Your task to perform on an android device: Clear the cart on walmart.com. Search for duracell triple a on walmart.com, select the first entry, add it to the cart, then select checkout. Image 0: 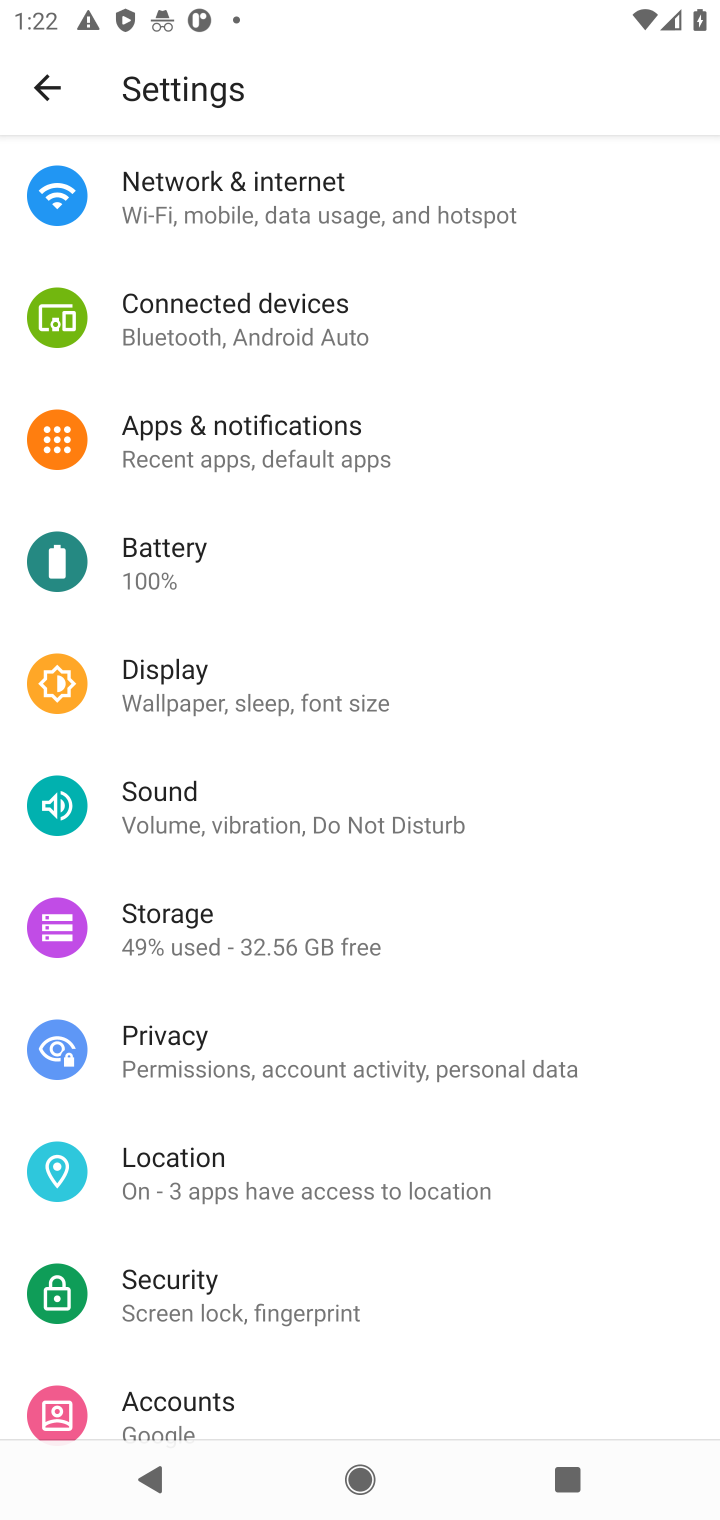
Step 0: press home button
Your task to perform on an android device: Clear the cart on walmart.com. Search for duracell triple a on walmart.com, select the first entry, add it to the cart, then select checkout. Image 1: 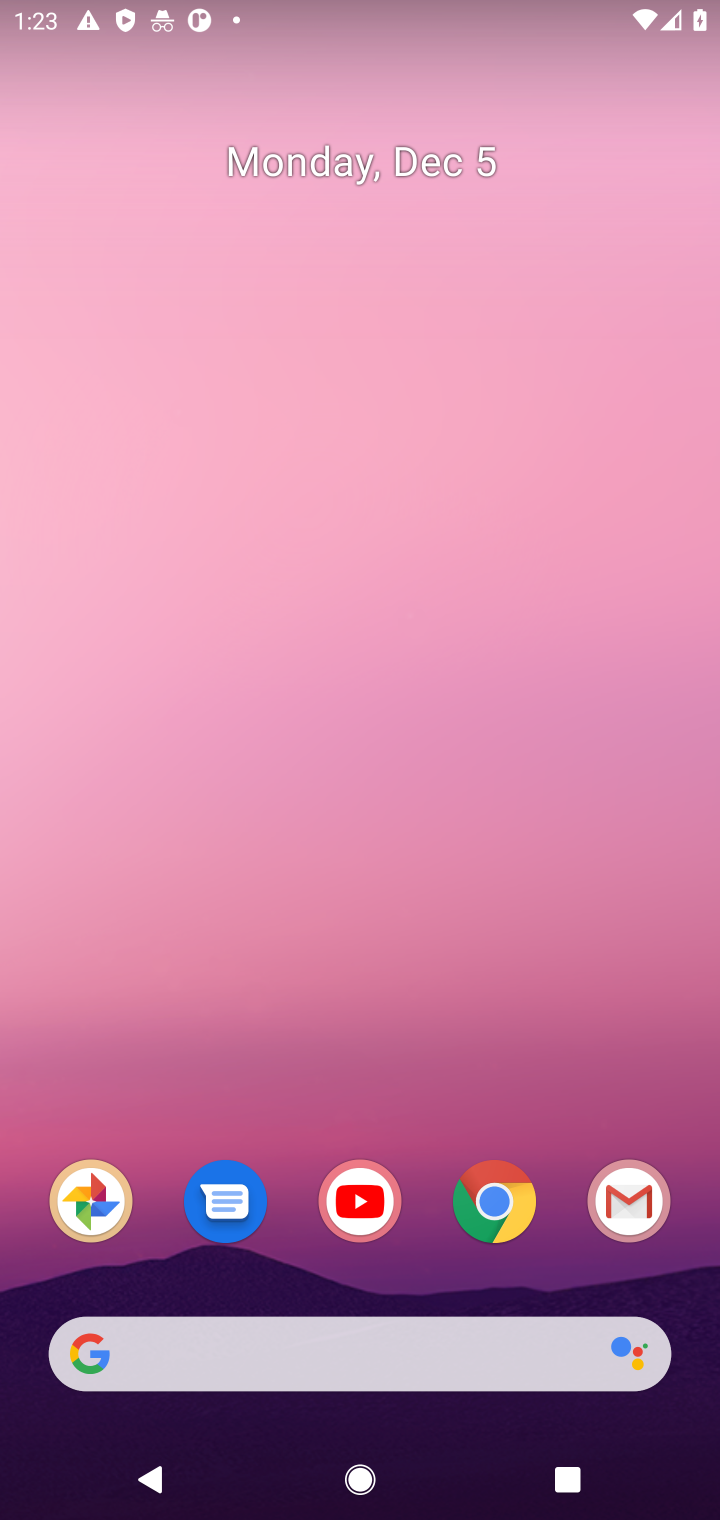
Step 1: click (521, 1220)
Your task to perform on an android device: Clear the cart on walmart.com. Search for duracell triple a on walmart.com, select the first entry, add it to the cart, then select checkout. Image 2: 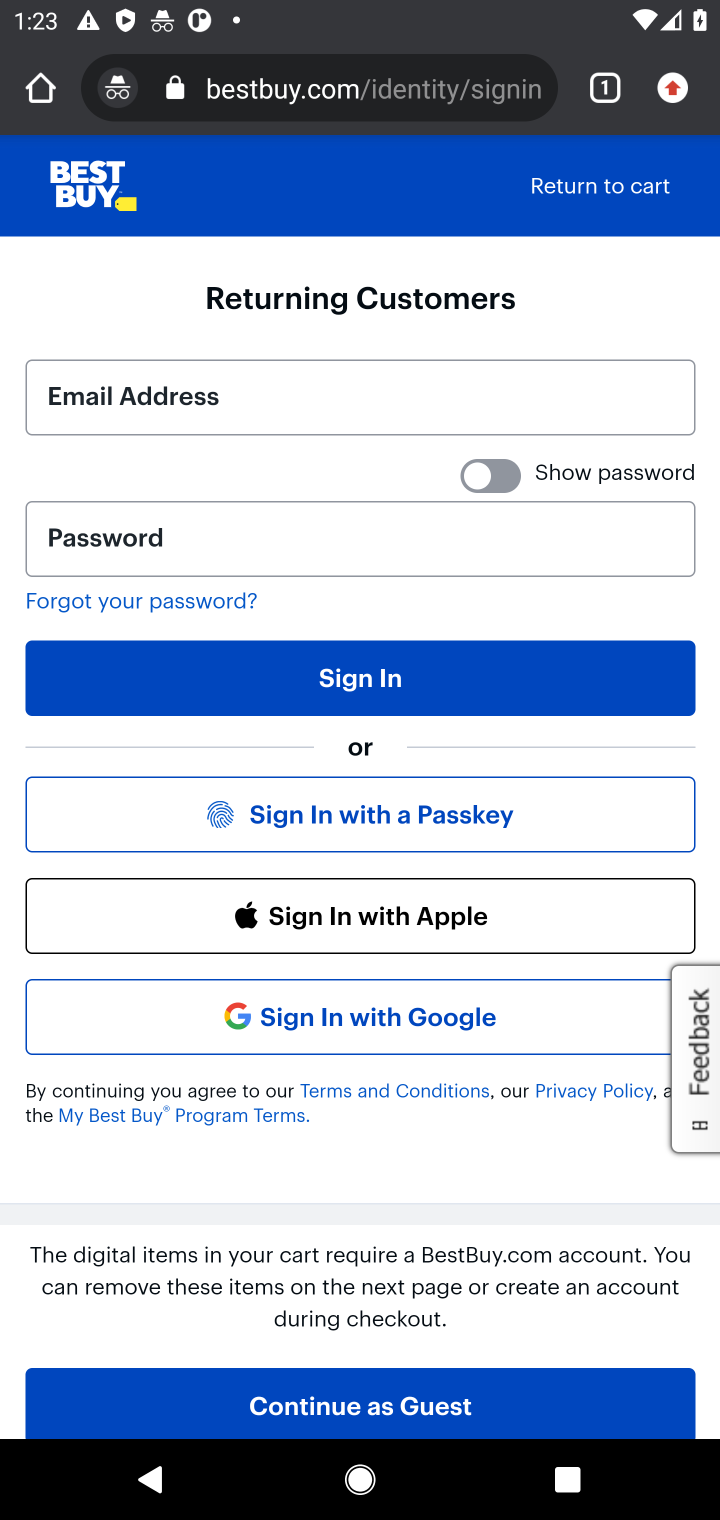
Step 2: click (385, 112)
Your task to perform on an android device: Clear the cart on walmart.com. Search for duracell triple a on walmart.com, select the first entry, add it to the cart, then select checkout. Image 3: 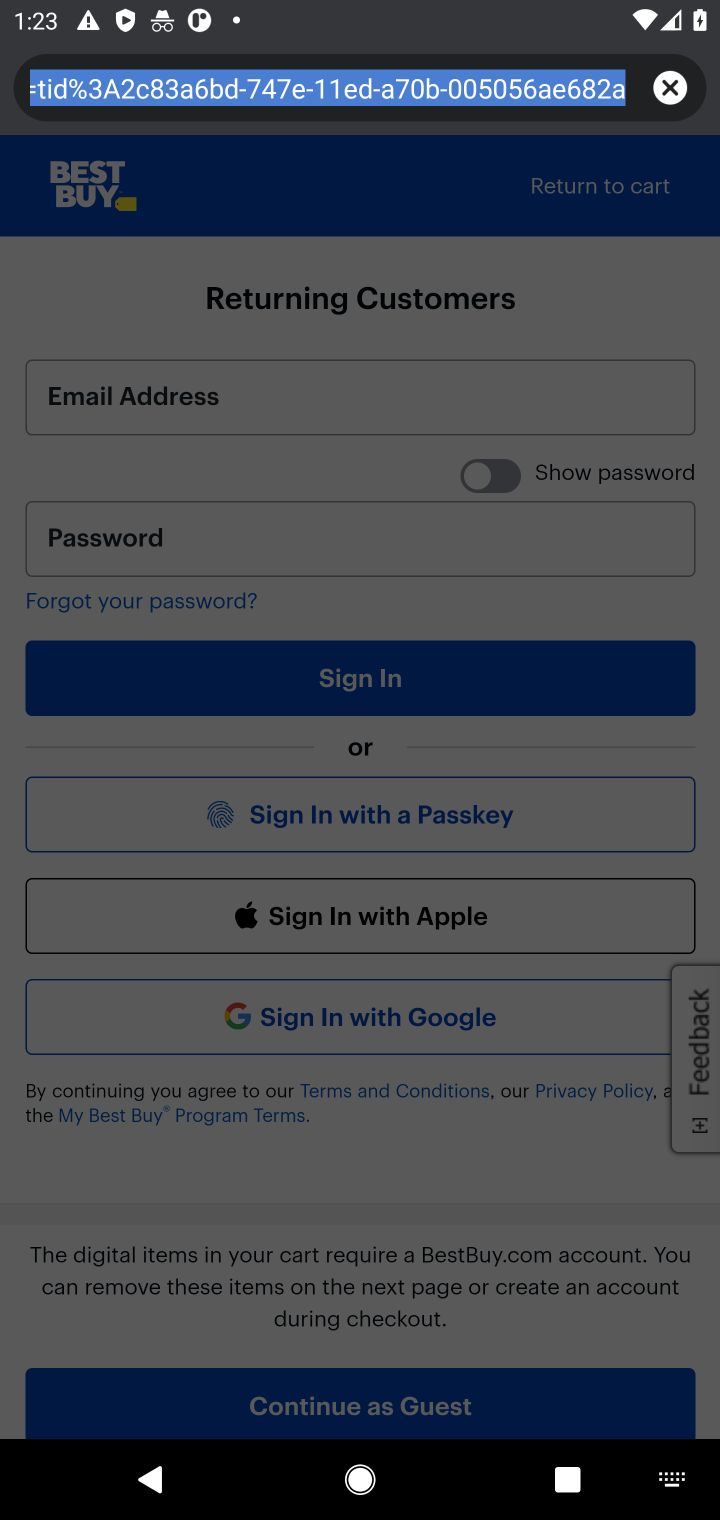
Step 3: click (662, 86)
Your task to perform on an android device: Clear the cart on walmart.com. Search for duracell triple a on walmart.com, select the first entry, add it to the cart, then select checkout. Image 4: 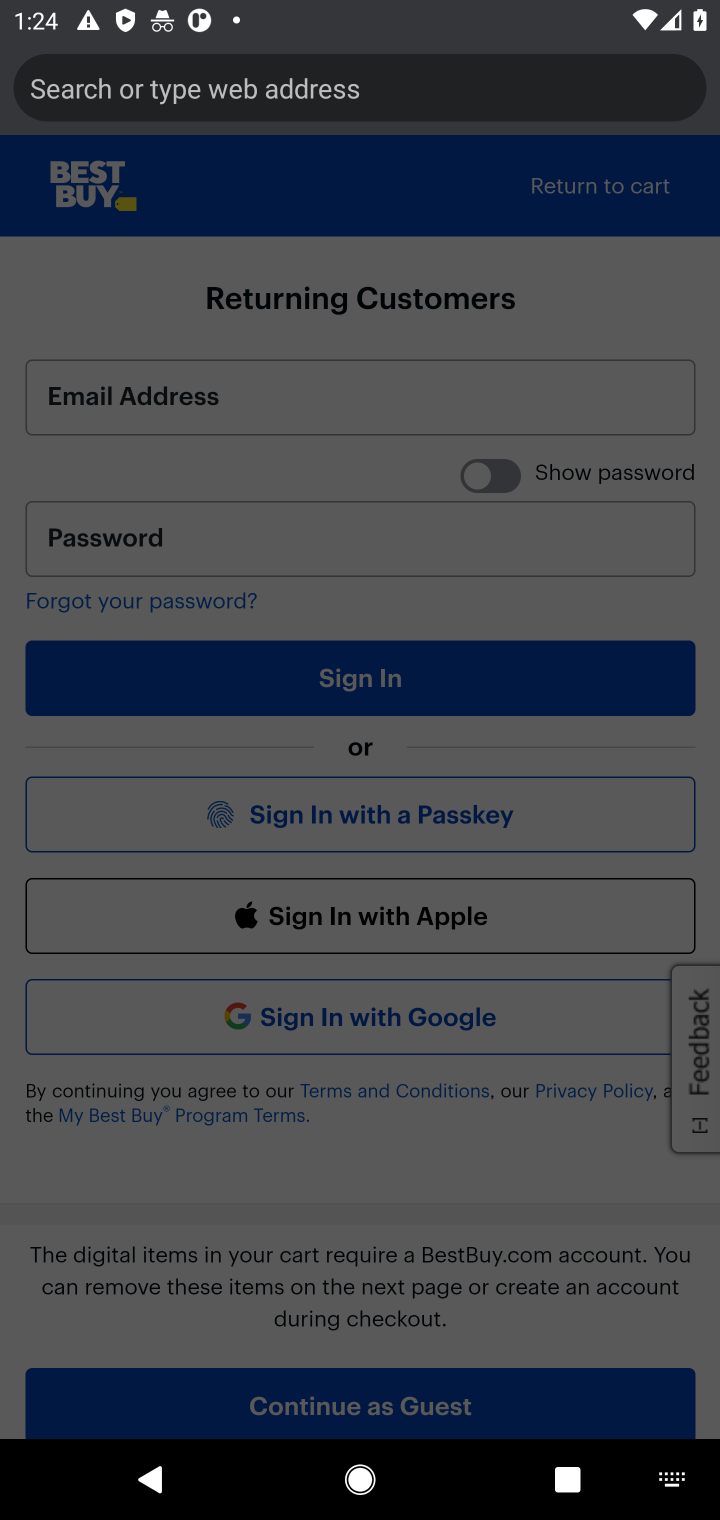
Step 4: type "walmart"
Your task to perform on an android device: Clear the cart on walmart.com. Search for duracell triple a on walmart.com, select the first entry, add it to the cart, then select checkout. Image 5: 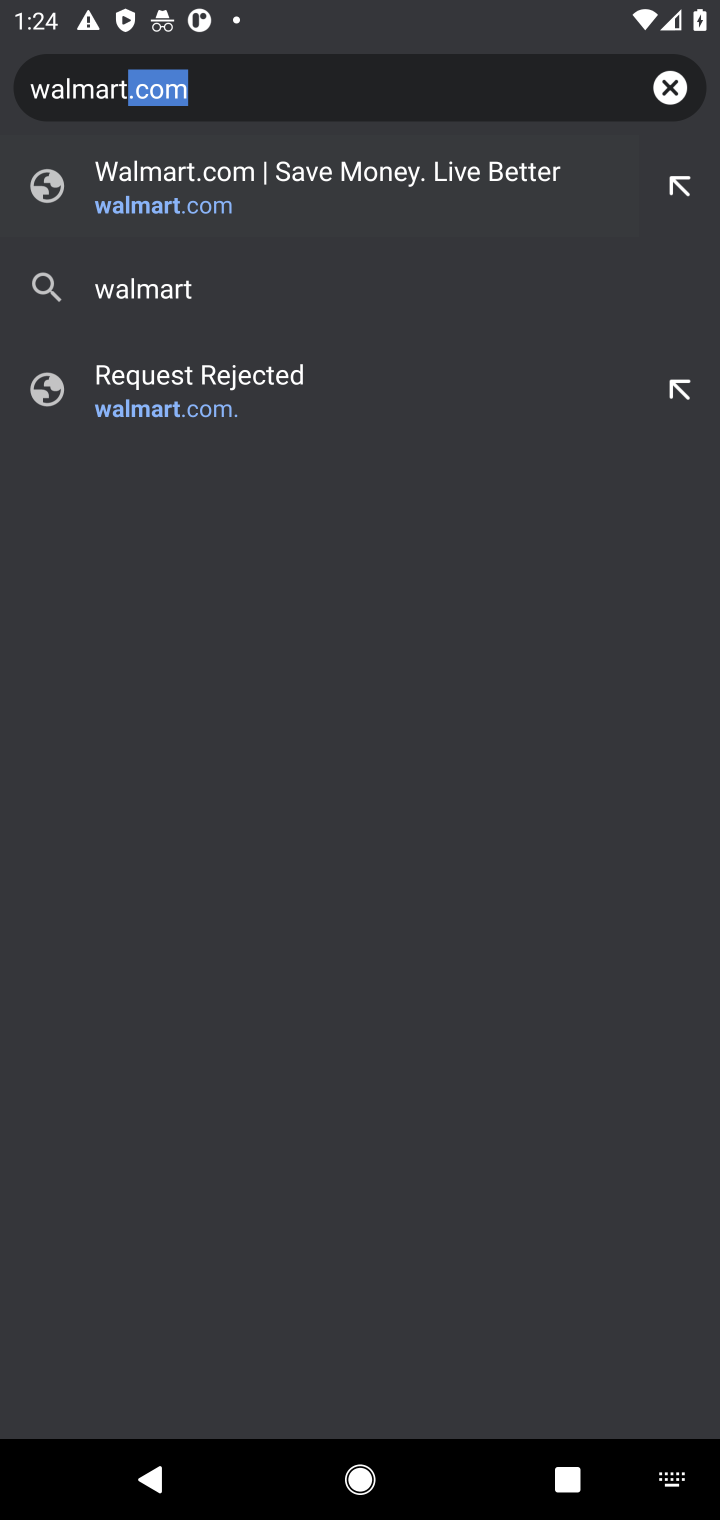
Step 5: click (166, 412)
Your task to perform on an android device: Clear the cart on walmart.com. Search for duracell triple a on walmart.com, select the first entry, add it to the cart, then select checkout. Image 6: 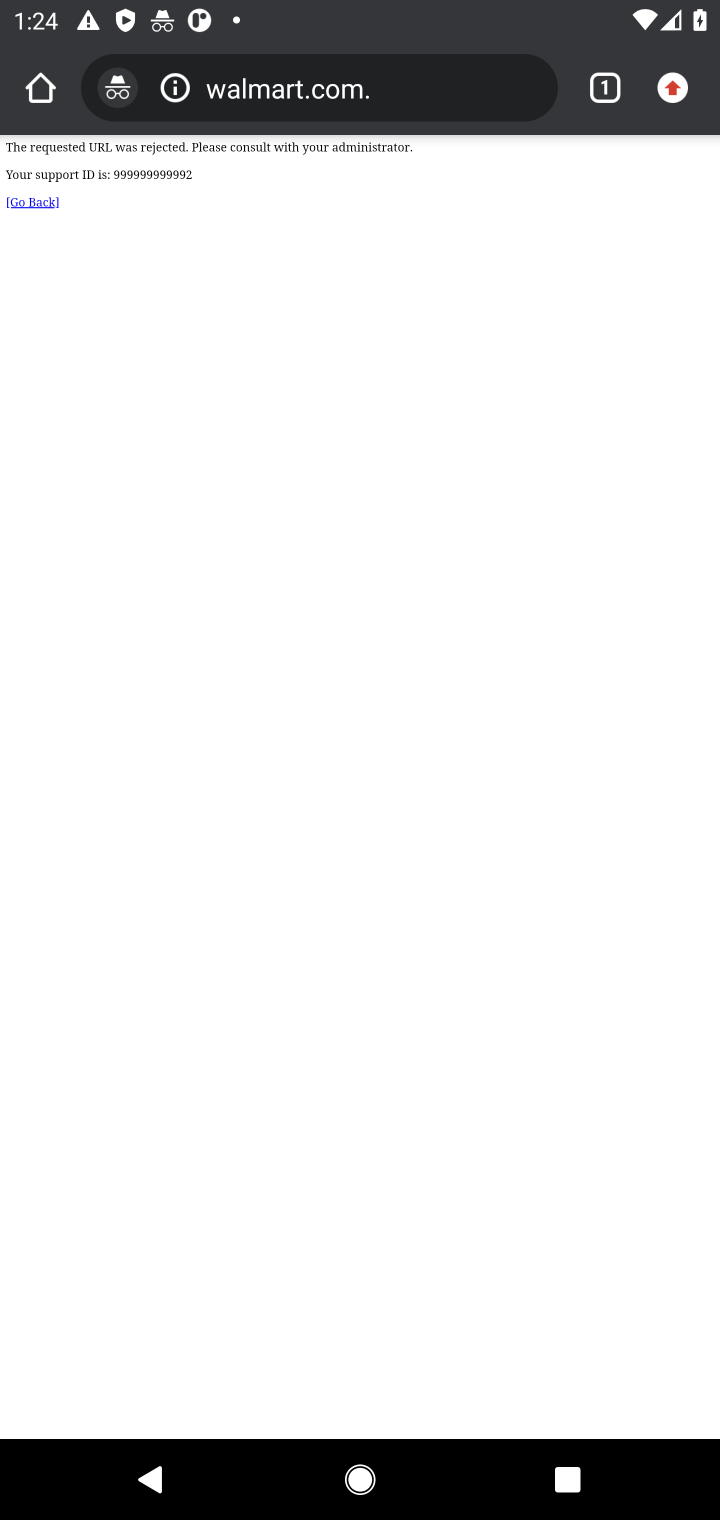
Step 6: click (53, 201)
Your task to perform on an android device: Clear the cart on walmart.com. Search for duracell triple a on walmart.com, select the first entry, add it to the cart, then select checkout. Image 7: 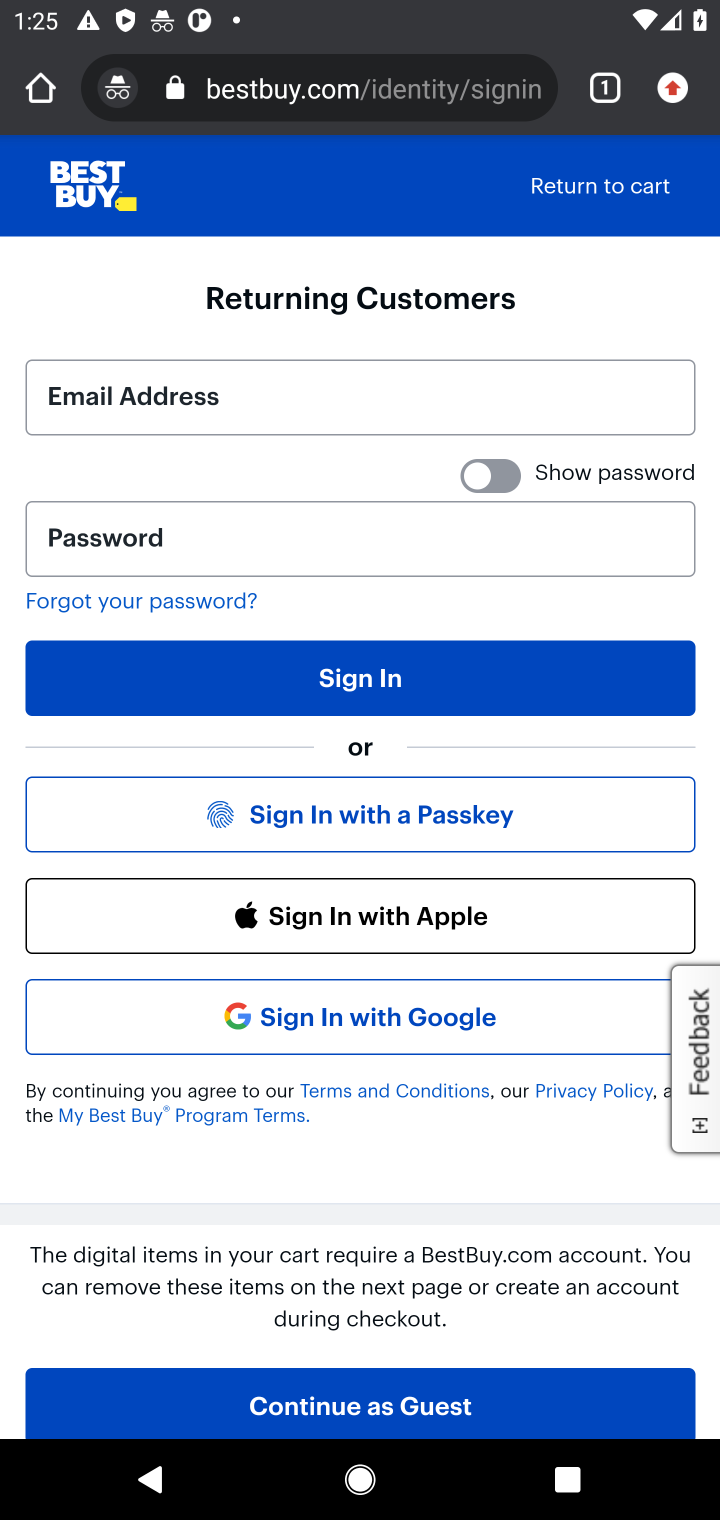
Step 7: click (322, 90)
Your task to perform on an android device: Clear the cart on walmart.com. Search for duracell triple a on walmart.com, select the first entry, add it to the cart, then select checkout. Image 8: 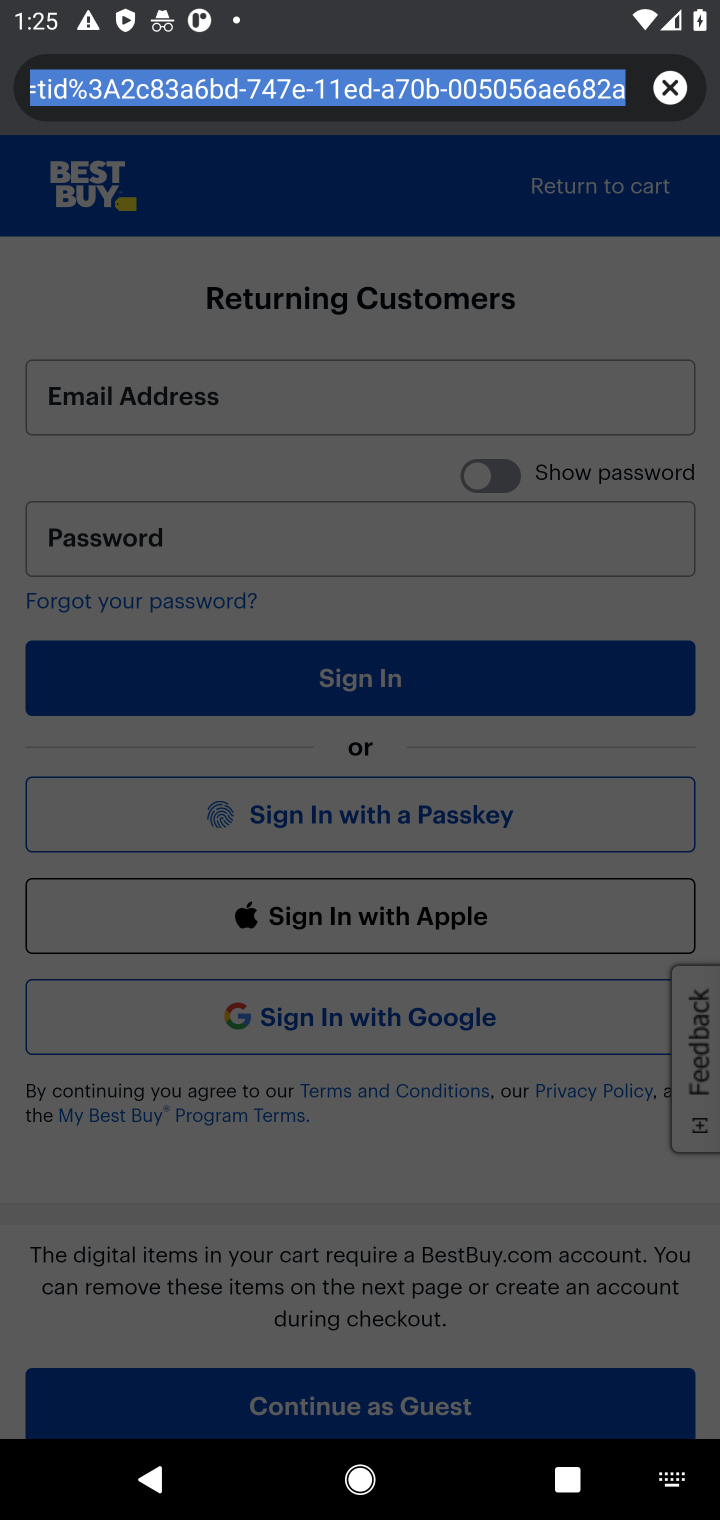
Step 8: click (649, 95)
Your task to perform on an android device: Clear the cart on walmart.com. Search for duracell triple a on walmart.com, select the first entry, add it to the cart, then select checkout. Image 9: 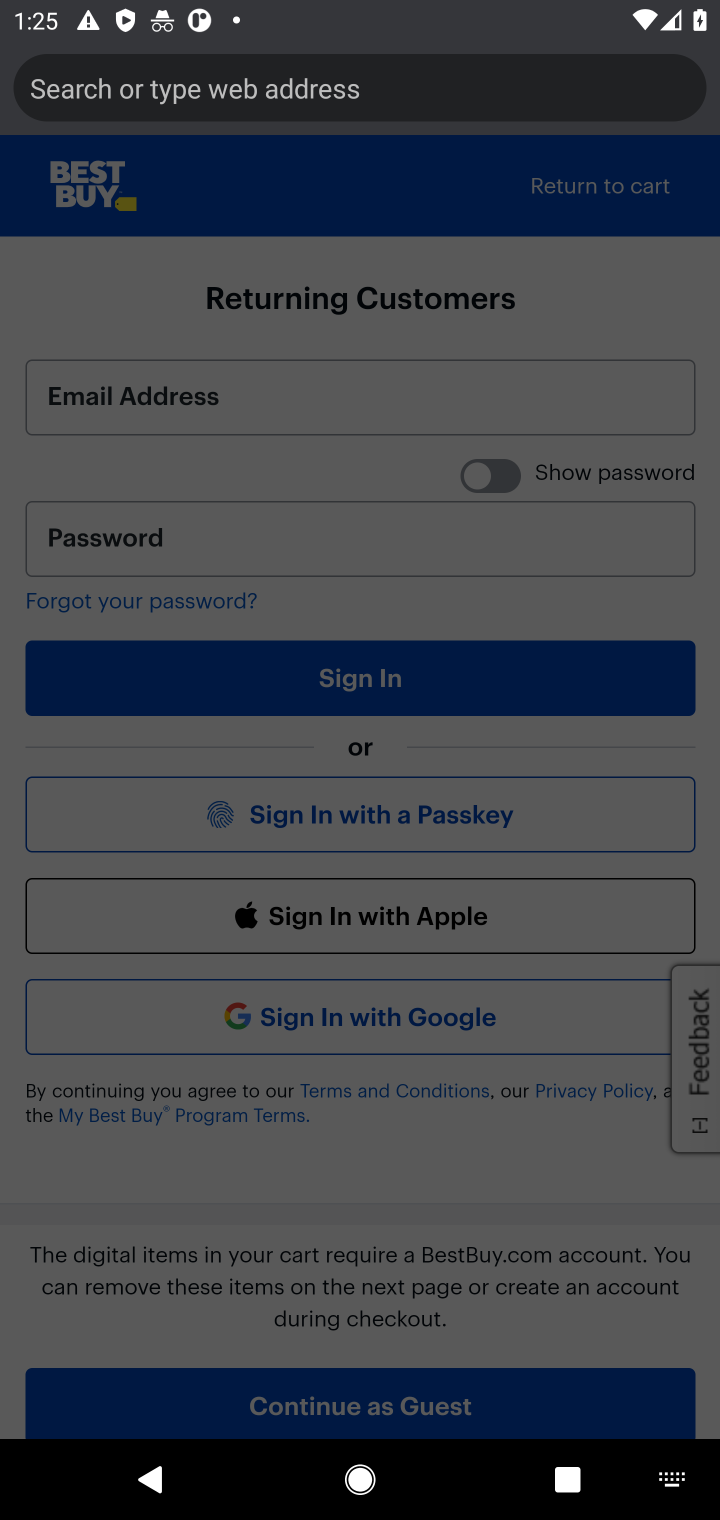
Step 9: click (377, 82)
Your task to perform on an android device: Clear the cart on walmart.com. Search for duracell triple a on walmart.com, select the first entry, add it to the cart, then select checkout. Image 10: 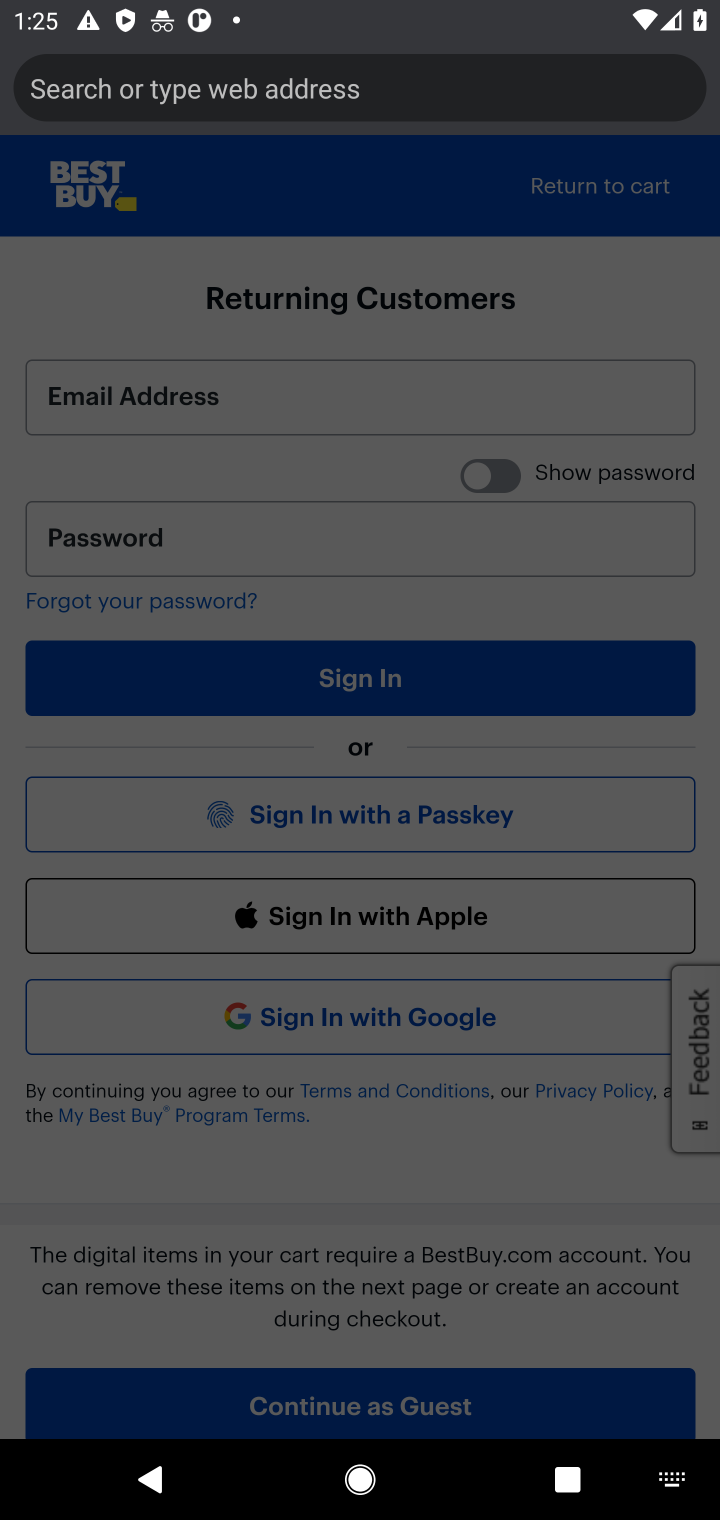
Step 10: type "walmart"
Your task to perform on an android device: Clear the cart on walmart.com. Search for duracell triple a on walmart.com, select the first entry, add it to the cart, then select checkout. Image 11: 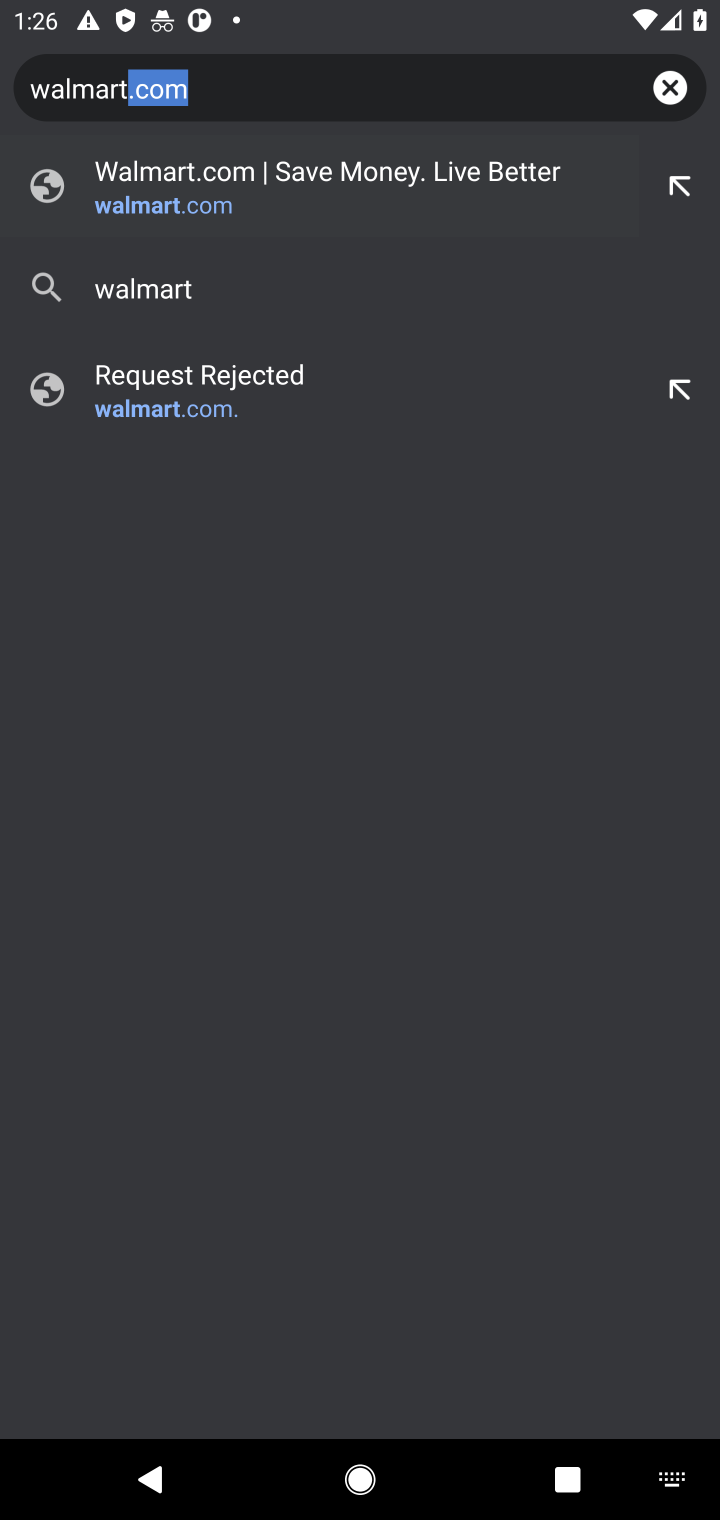
Step 11: click (159, 402)
Your task to perform on an android device: Clear the cart on walmart.com. Search for duracell triple a on walmart.com, select the first entry, add it to the cart, then select checkout. Image 12: 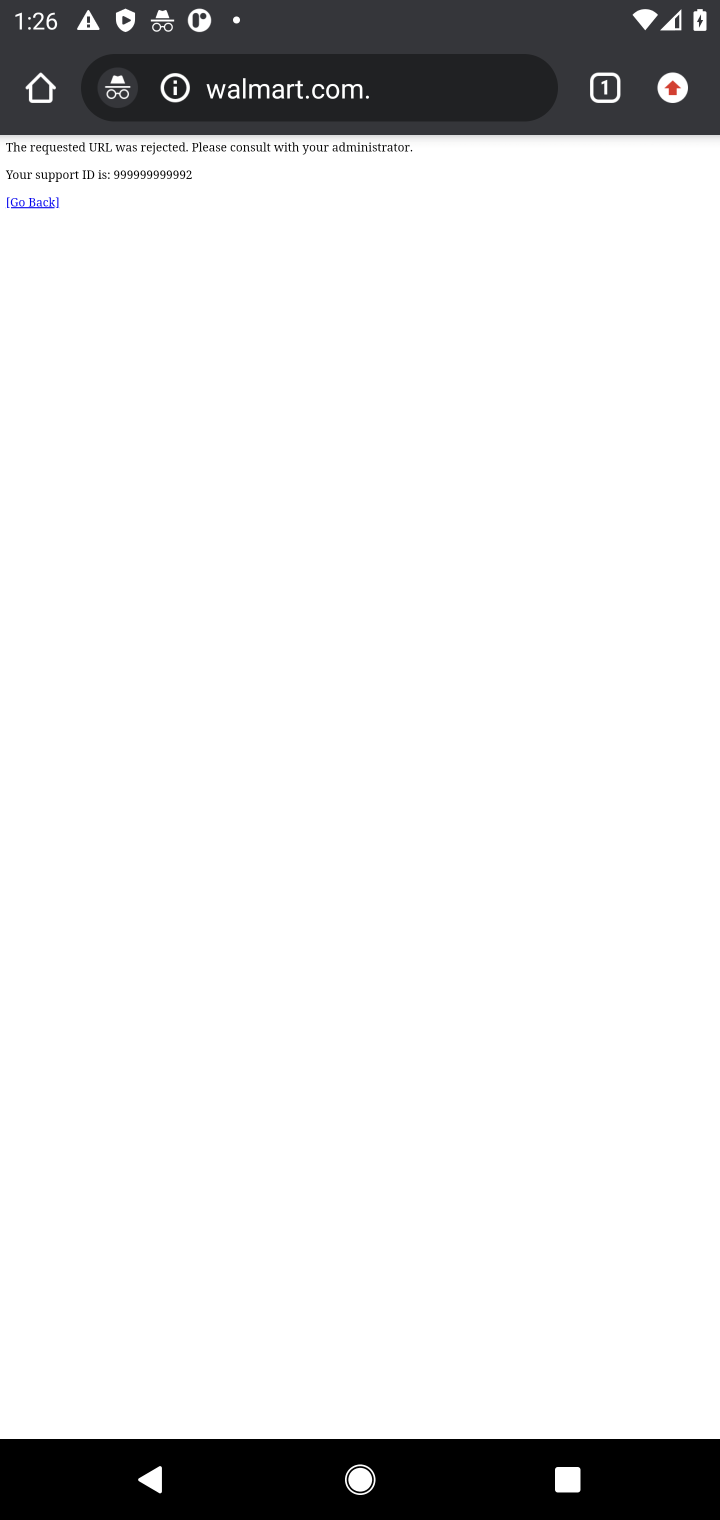
Step 12: press back button
Your task to perform on an android device: Clear the cart on walmart.com. Search for duracell triple a on walmart.com, select the first entry, add it to the cart, then select checkout. Image 13: 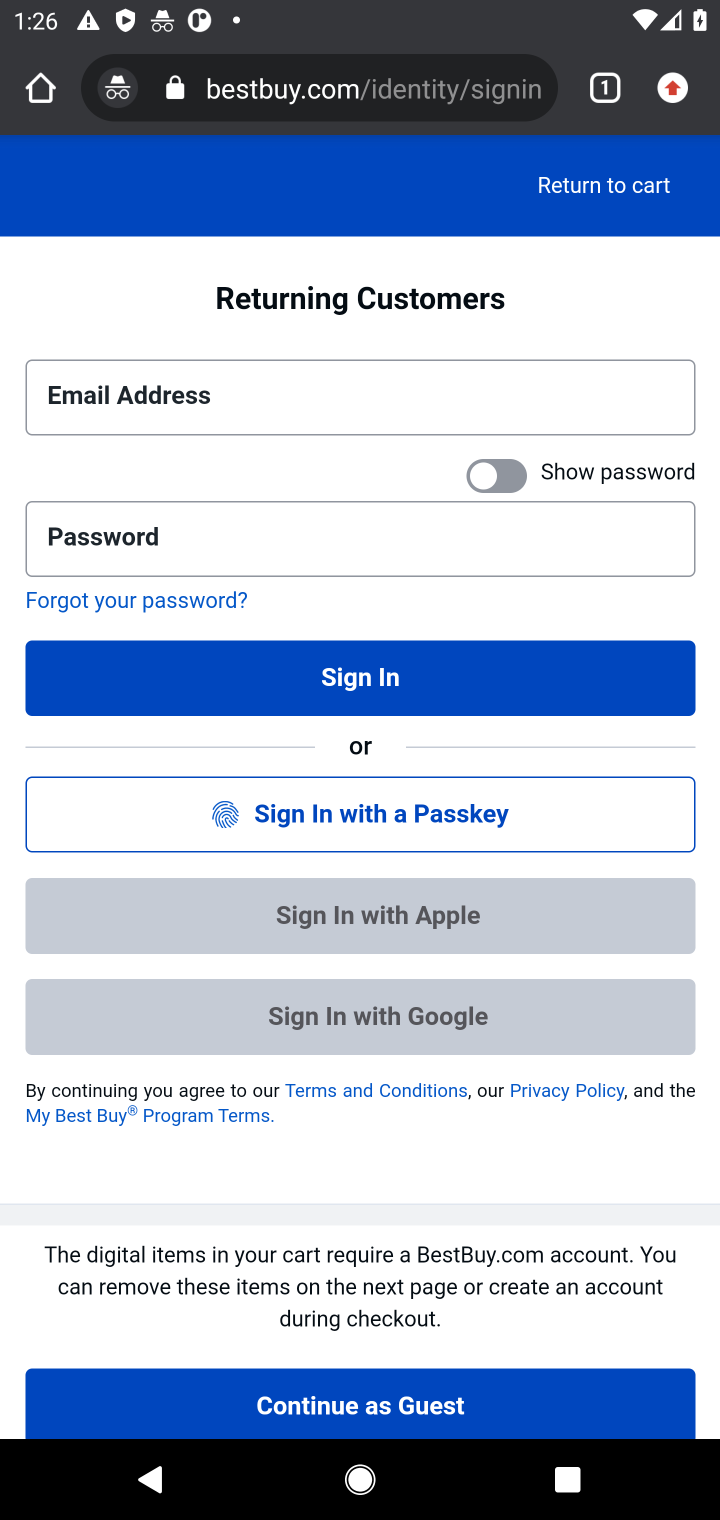
Step 13: click (310, 107)
Your task to perform on an android device: Clear the cart on walmart.com. Search for duracell triple a on walmart.com, select the first entry, add it to the cart, then select checkout. Image 14: 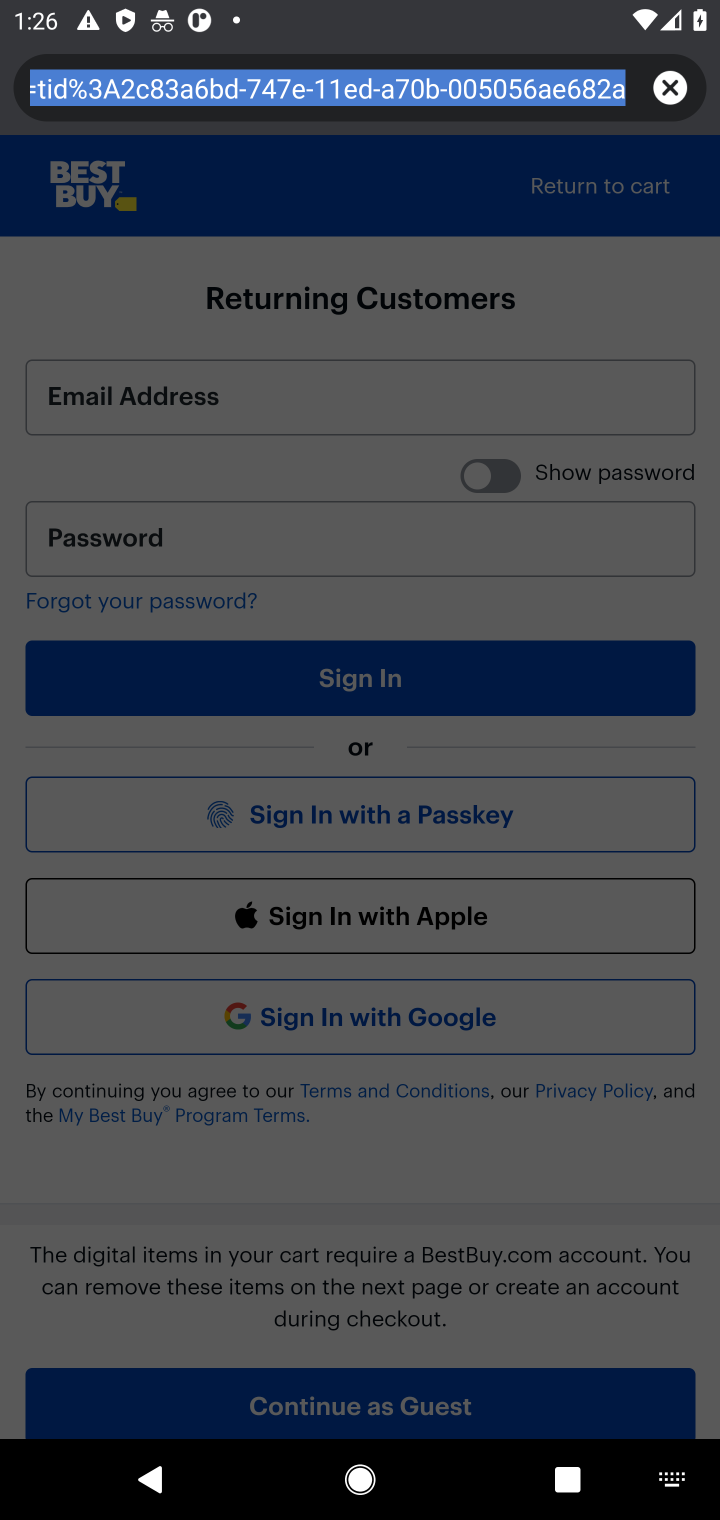
Step 14: click (664, 98)
Your task to perform on an android device: Clear the cart on walmart.com. Search for duracell triple a on walmart.com, select the first entry, add it to the cart, then select checkout. Image 15: 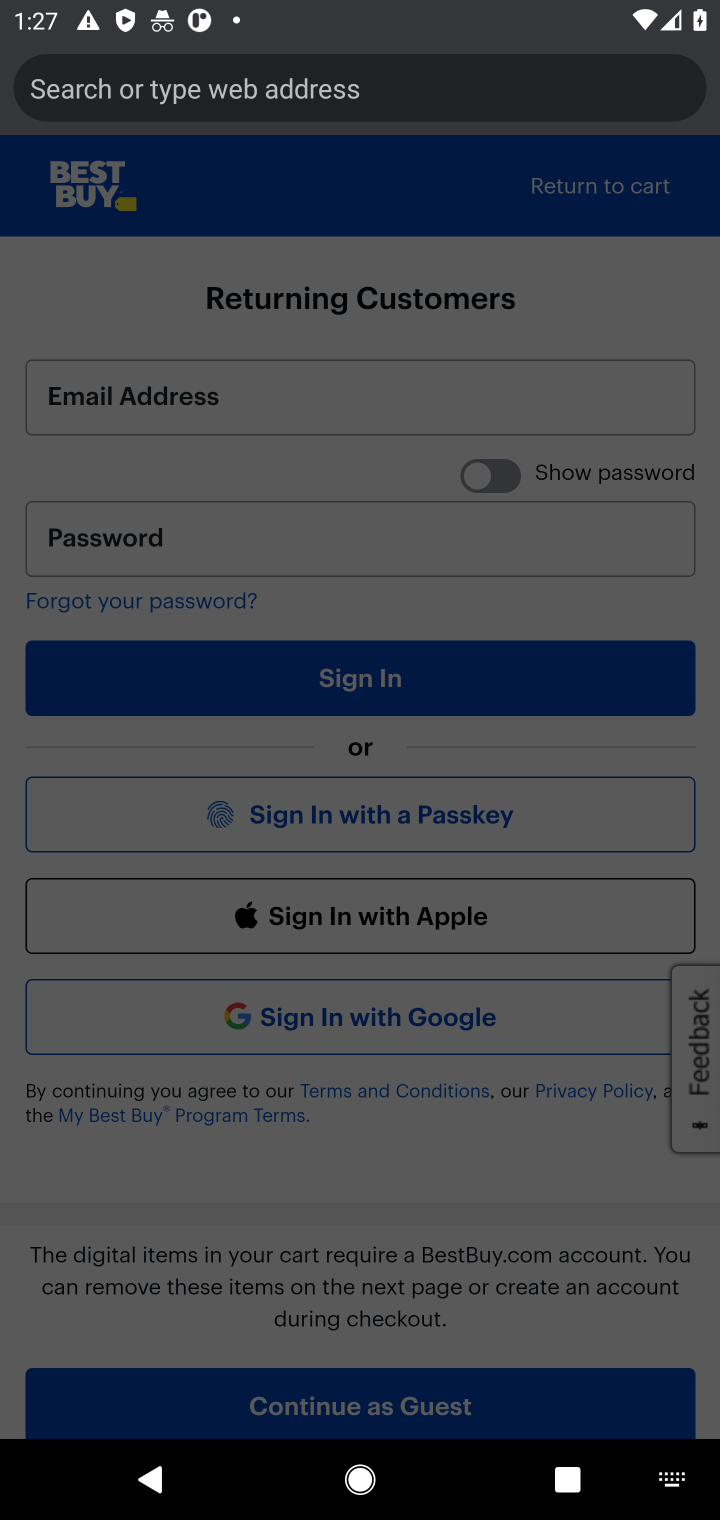
Step 15: type "walmart.com"
Your task to perform on an android device: Clear the cart on walmart.com. Search for duracell triple a on walmart.com, select the first entry, add it to the cart, then select checkout. Image 16: 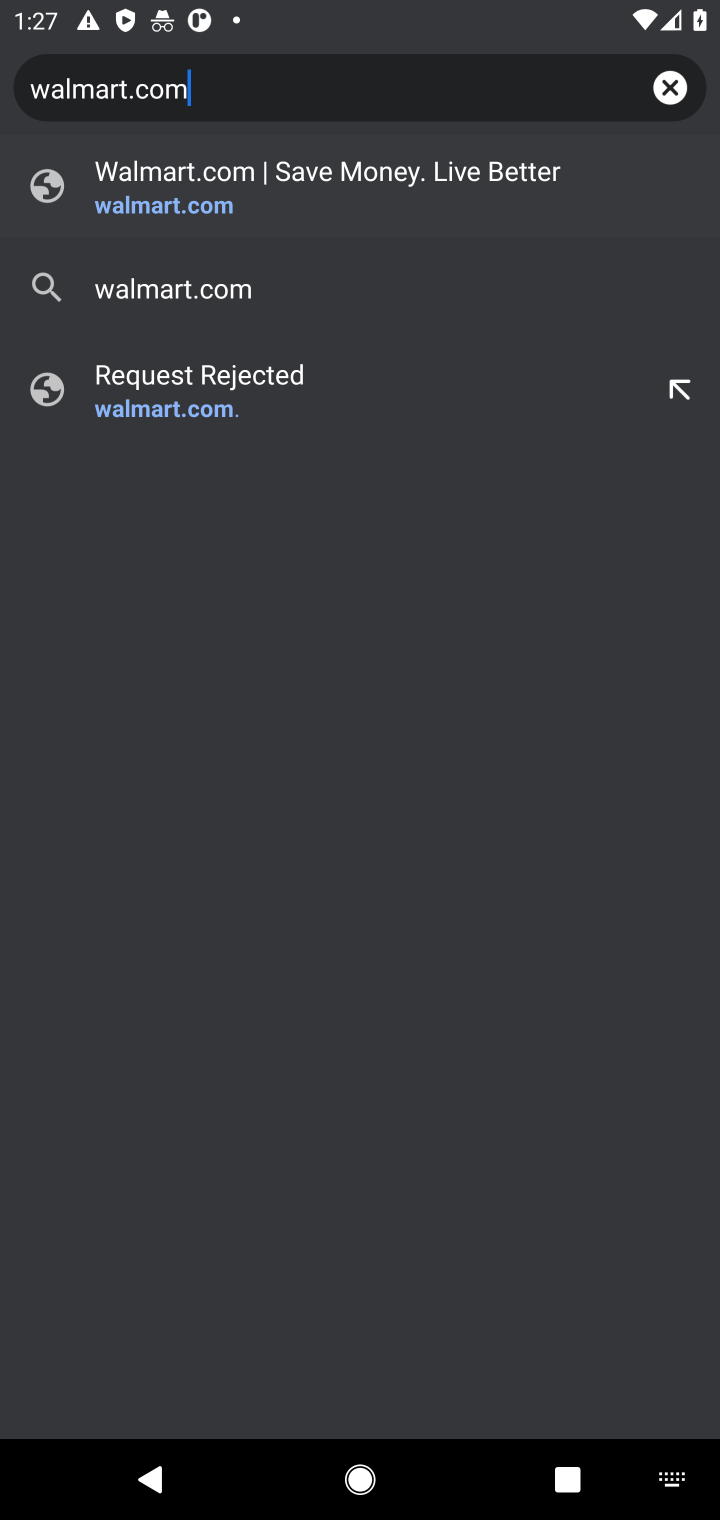
Step 16: click (206, 206)
Your task to perform on an android device: Clear the cart on walmart.com. Search for duracell triple a on walmart.com, select the first entry, add it to the cart, then select checkout. Image 17: 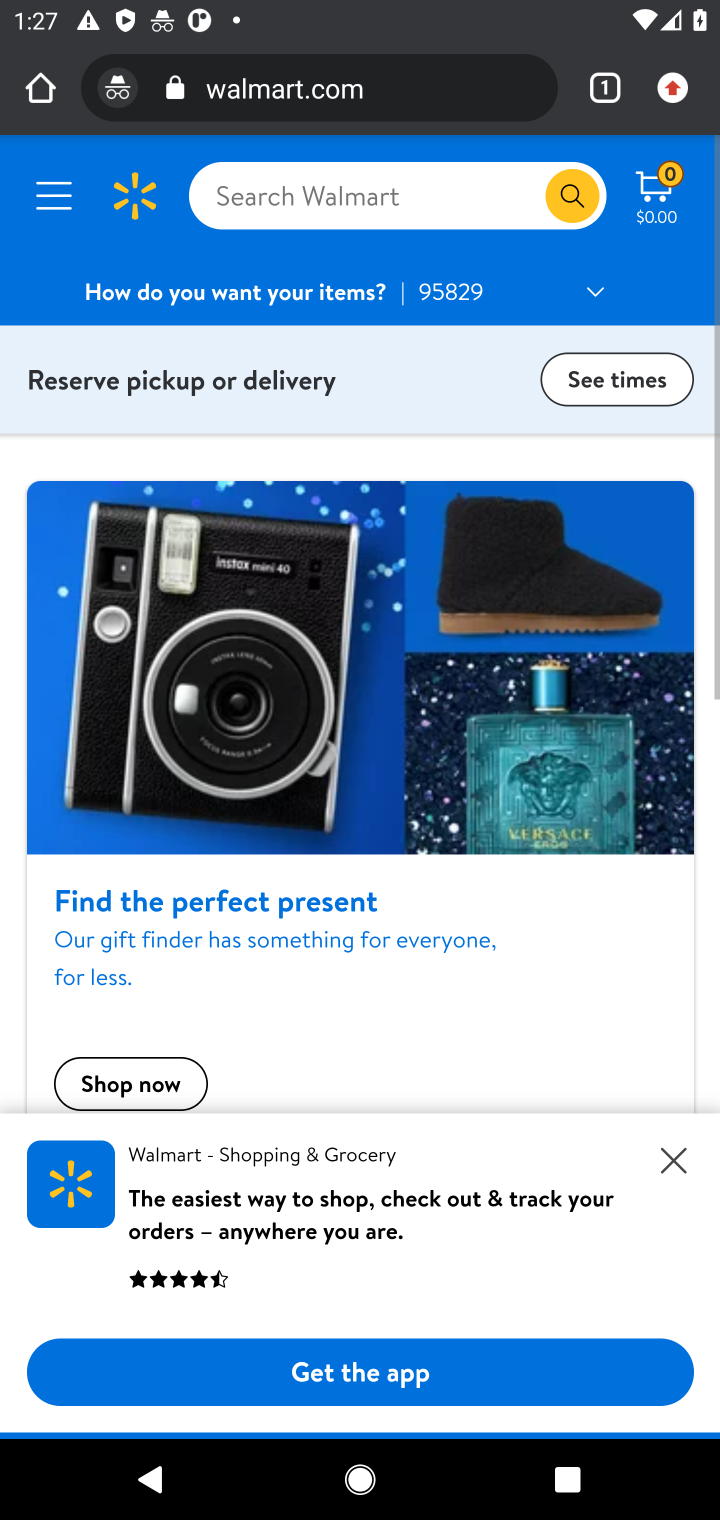
Step 17: click (662, 194)
Your task to perform on an android device: Clear the cart on walmart.com. Search for duracell triple a on walmart.com, select the first entry, add it to the cart, then select checkout. Image 18: 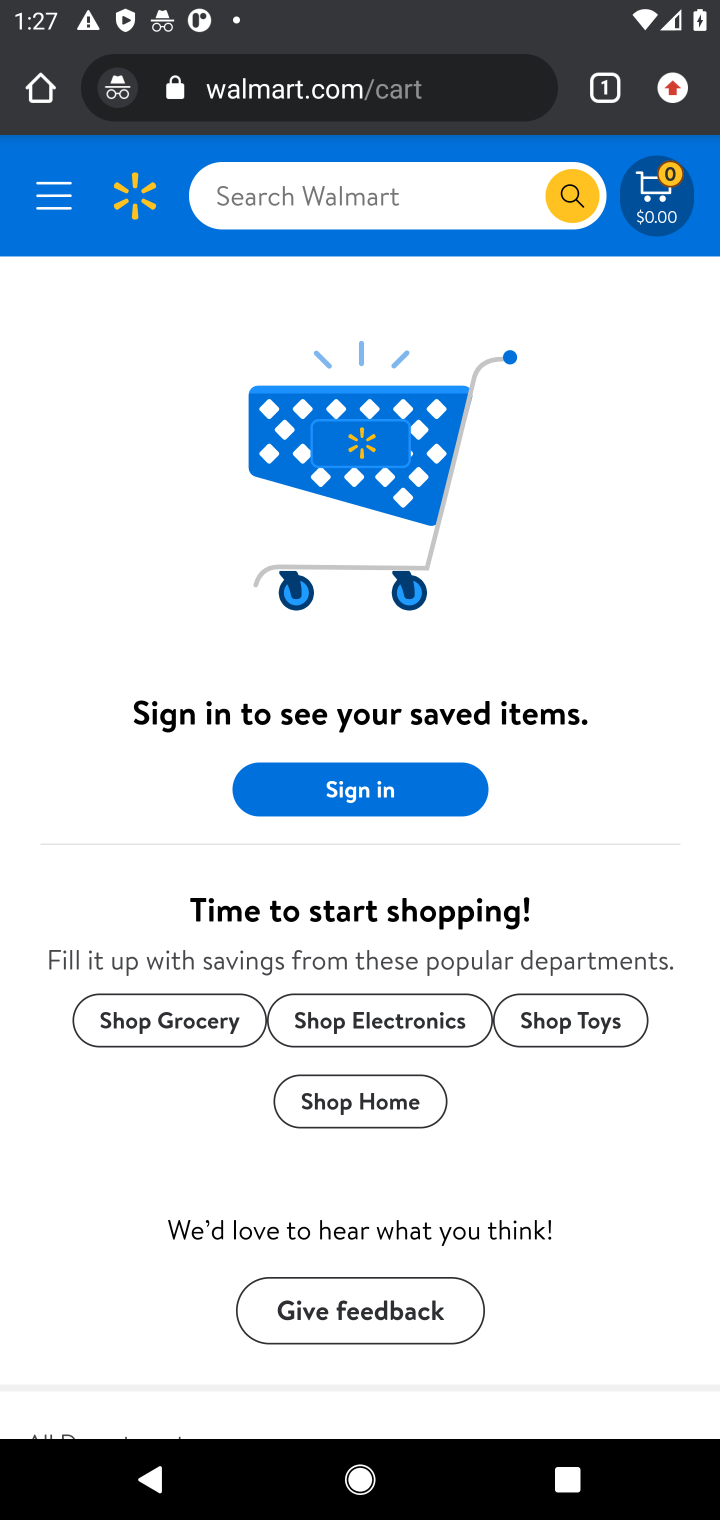
Step 18: click (445, 185)
Your task to perform on an android device: Clear the cart on walmart.com. Search for duracell triple a on walmart.com, select the first entry, add it to the cart, then select checkout. Image 19: 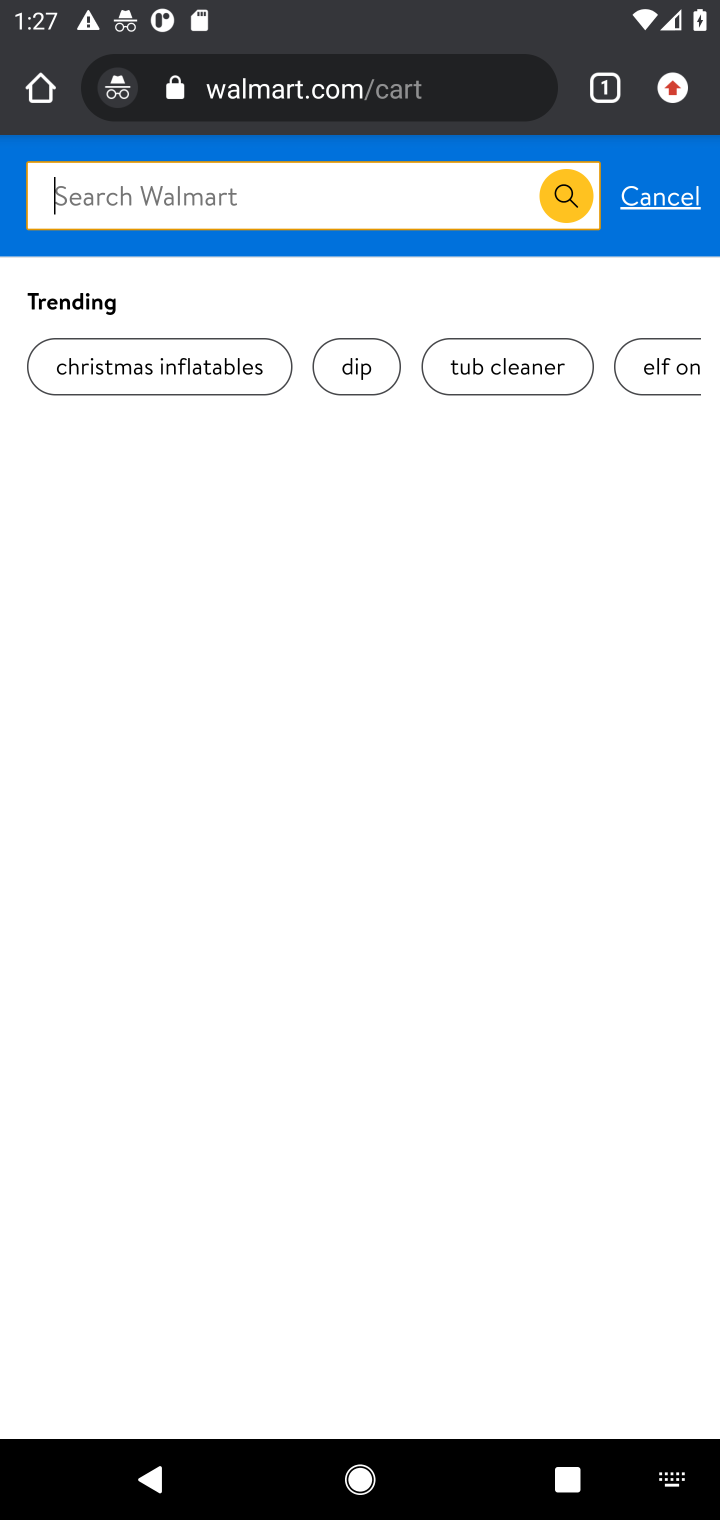
Step 19: type "duracell triple a"
Your task to perform on an android device: Clear the cart on walmart.com. Search for duracell triple a on walmart.com, select the first entry, add it to the cart, then select checkout. Image 20: 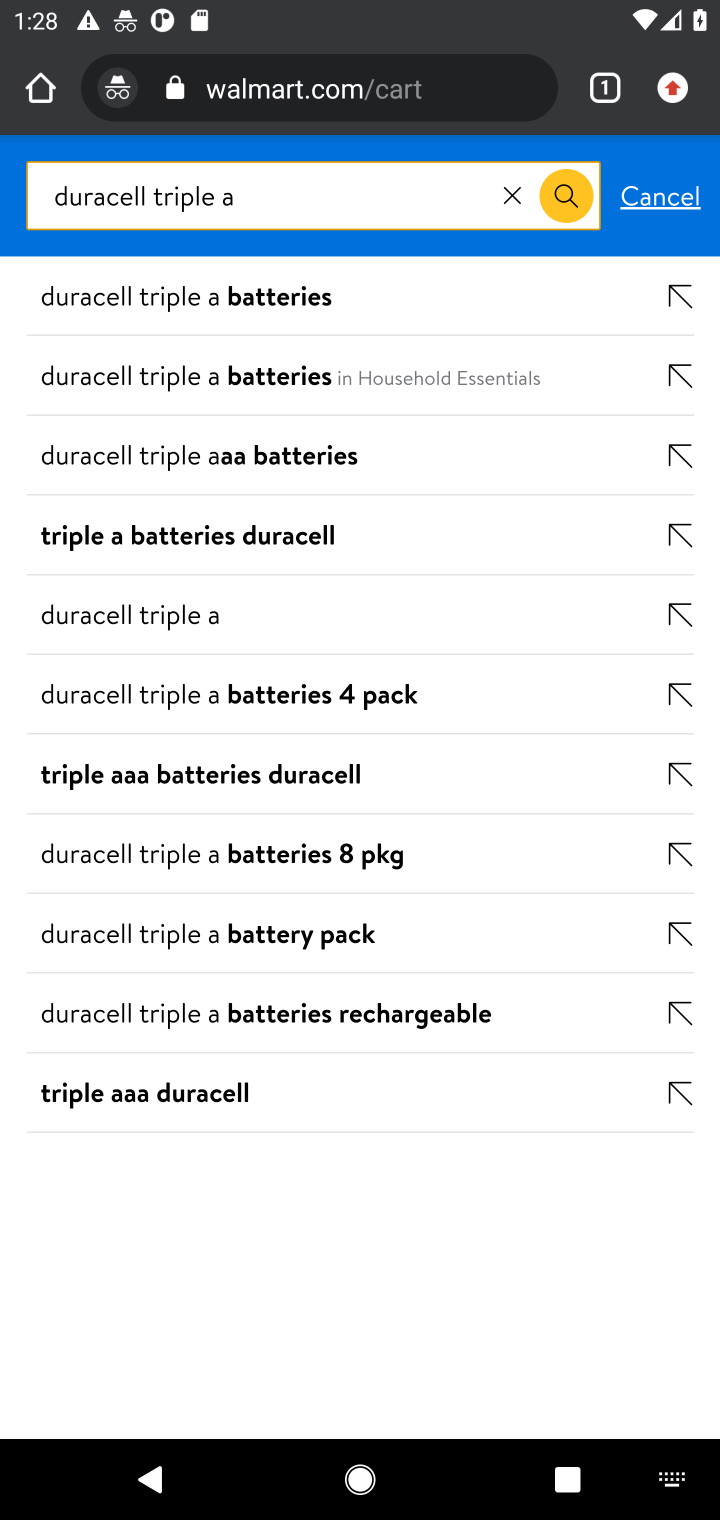
Step 20: click (563, 186)
Your task to perform on an android device: Clear the cart on walmart.com. Search for duracell triple a on walmart.com, select the first entry, add it to the cart, then select checkout. Image 21: 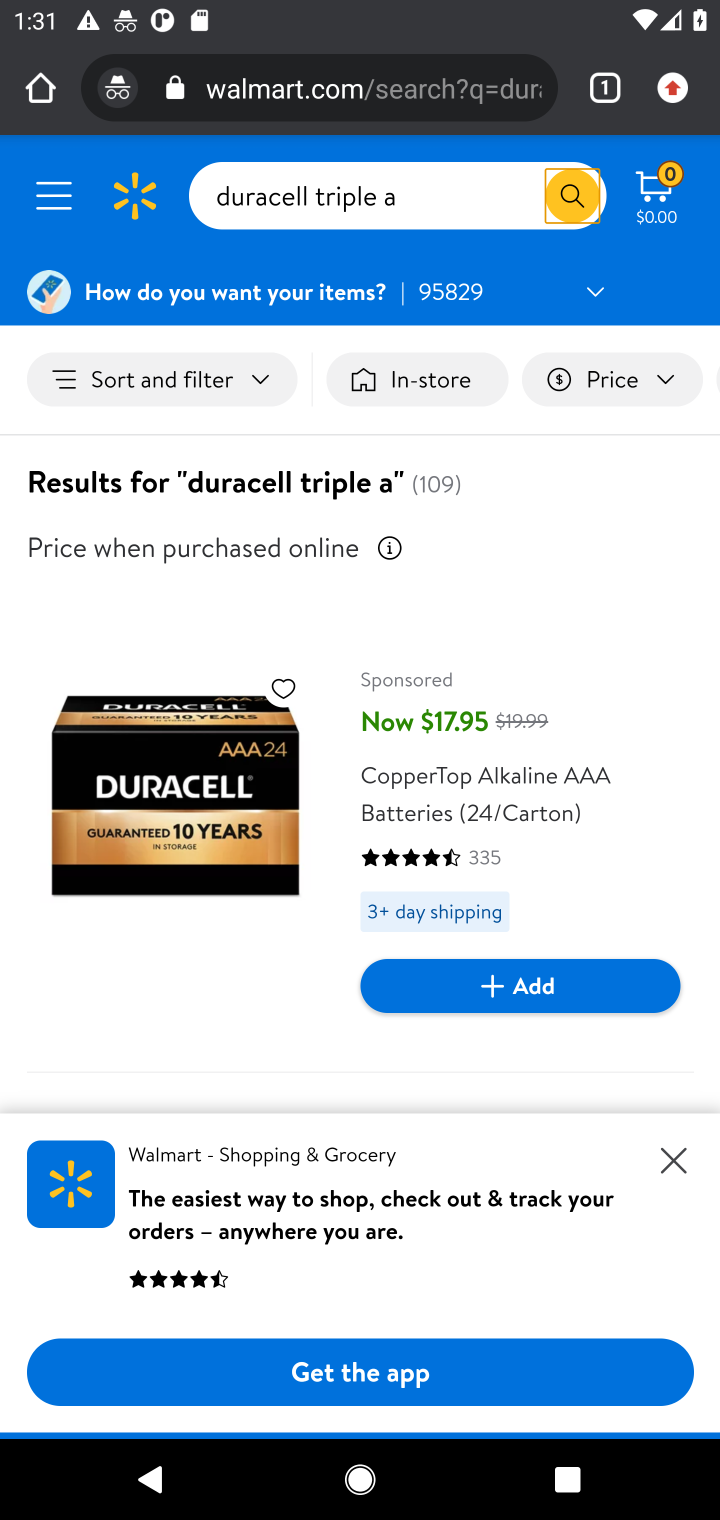
Step 21: click (521, 997)
Your task to perform on an android device: Clear the cart on walmart.com. Search for duracell triple a on walmart.com, select the first entry, add it to the cart, then select checkout. Image 22: 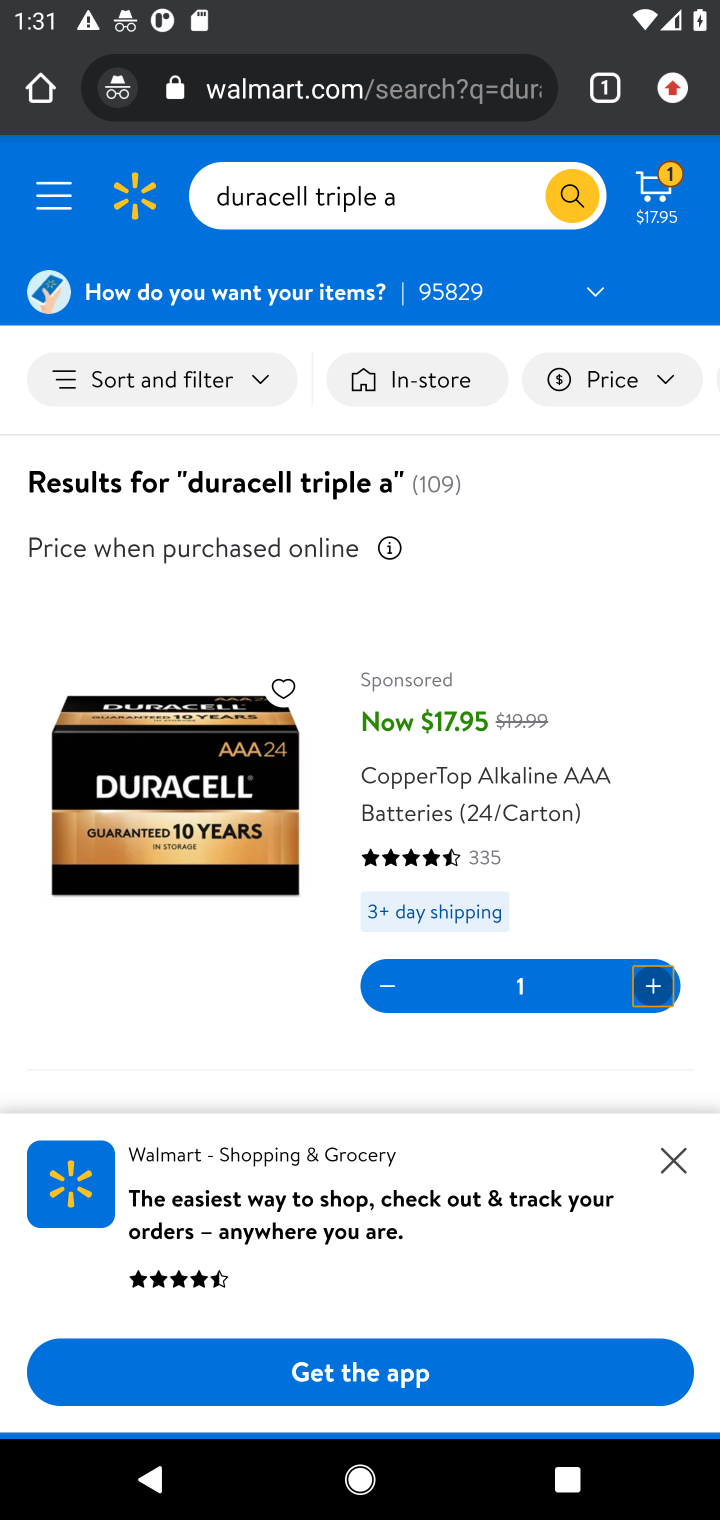
Step 22: click (674, 174)
Your task to perform on an android device: Clear the cart on walmart.com. Search for duracell triple a on walmart.com, select the first entry, add it to the cart, then select checkout. Image 23: 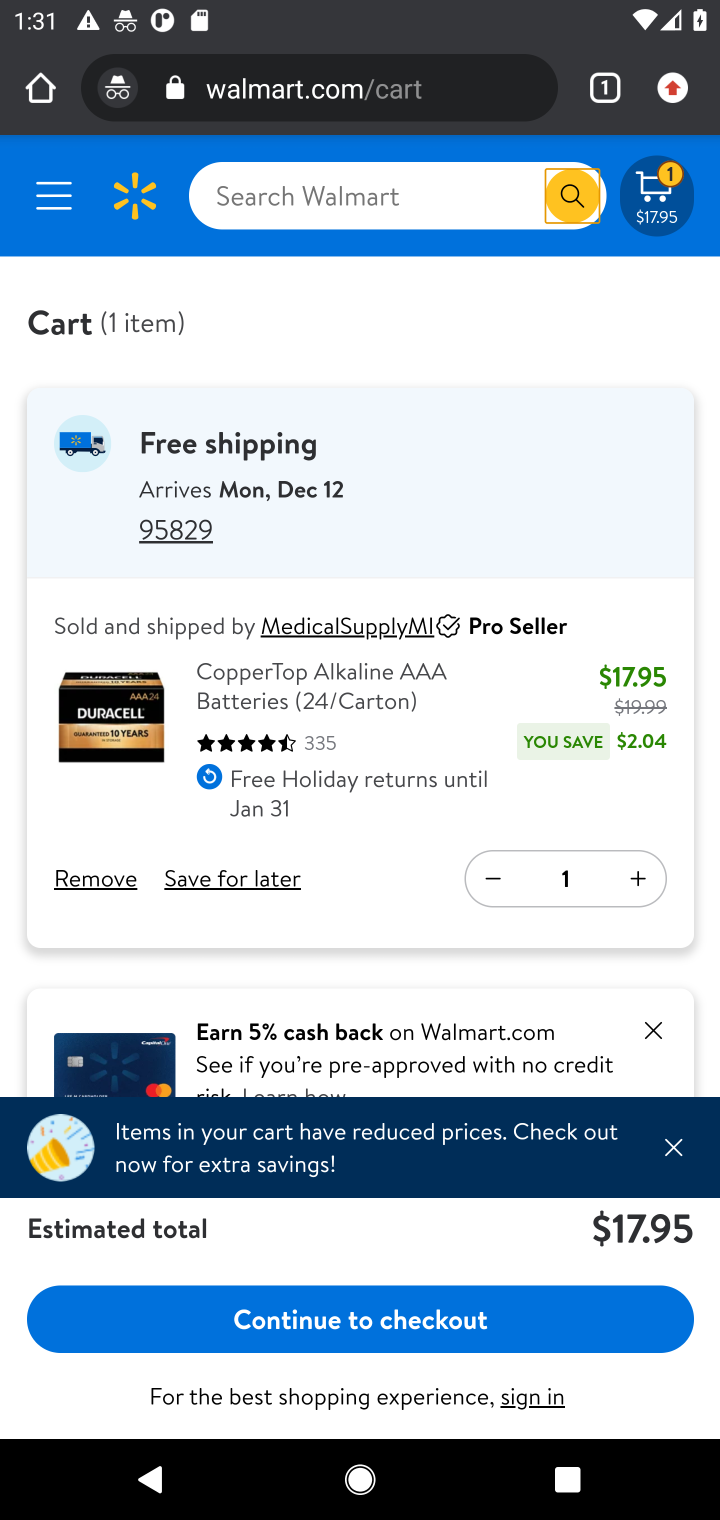
Step 23: click (383, 1337)
Your task to perform on an android device: Clear the cart on walmart.com. Search for duracell triple a on walmart.com, select the first entry, add it to the cart, then select checkout. Image 24: 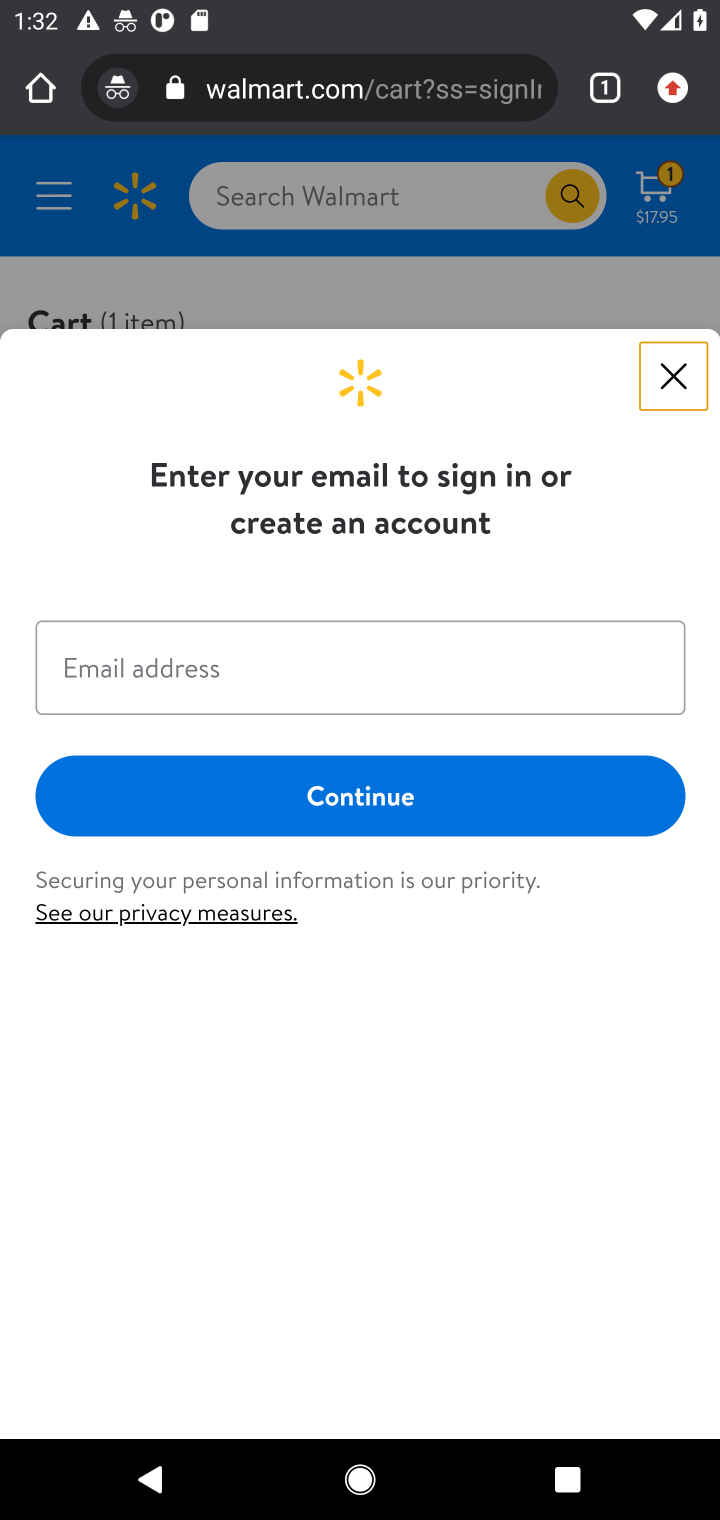
Step 24: task complete